Your task to perform on an android device: Open my contact list Image 0: 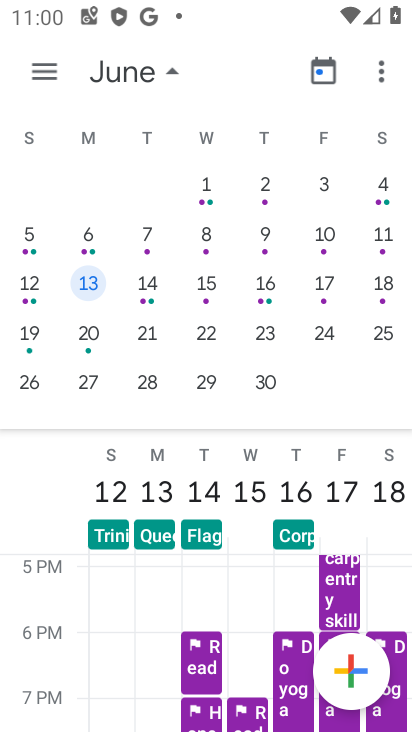
Step 0: press home button
Your task to perform on an android device: Open my contact list Image 1: 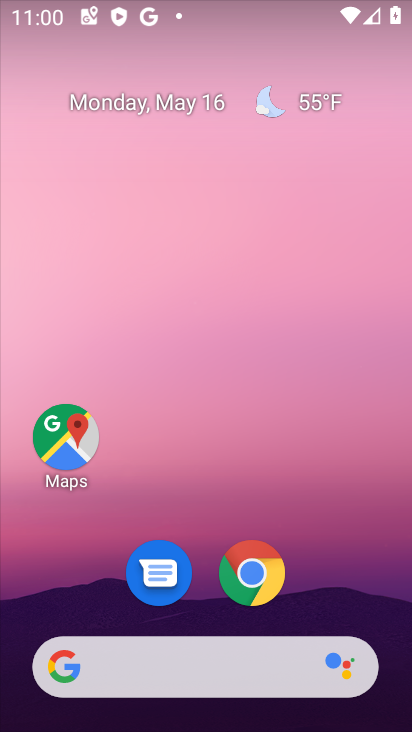
Step 1: drag from (212, 481) to (168, 1)
Your task to perform on an android device: Open my contact list Image 2: 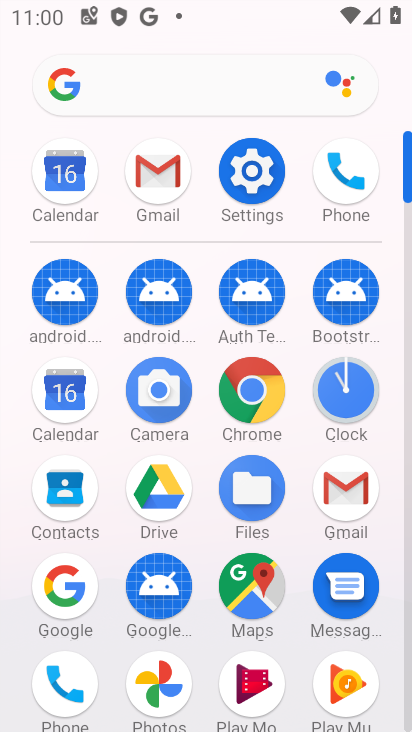
Step 2: click (81, 476)
Your task to perform on an android device: Open my contact list Image 3: 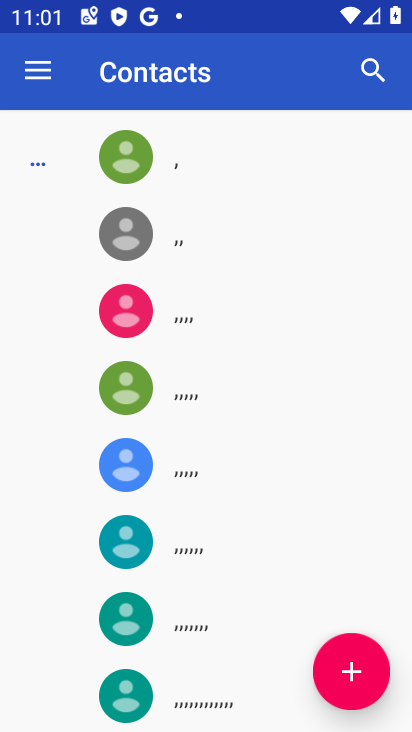
Step 3: task complete